Your task to perform on an android device: Go to notification settings Image 0: 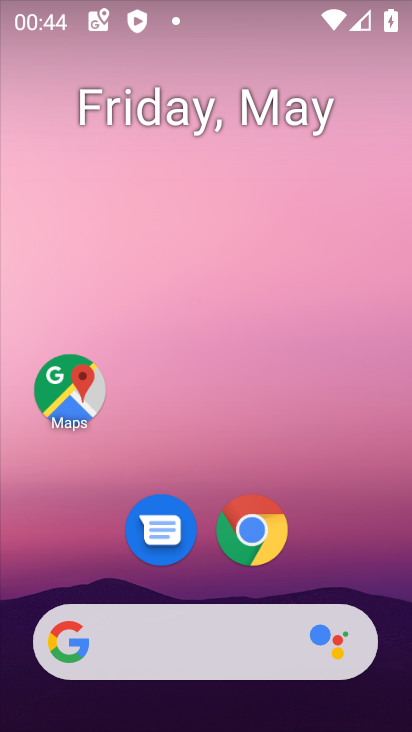
Step 0: drag from (308, 560) to (287, 72)
Your task to perform on an android device: Go to notification settings Image 1: 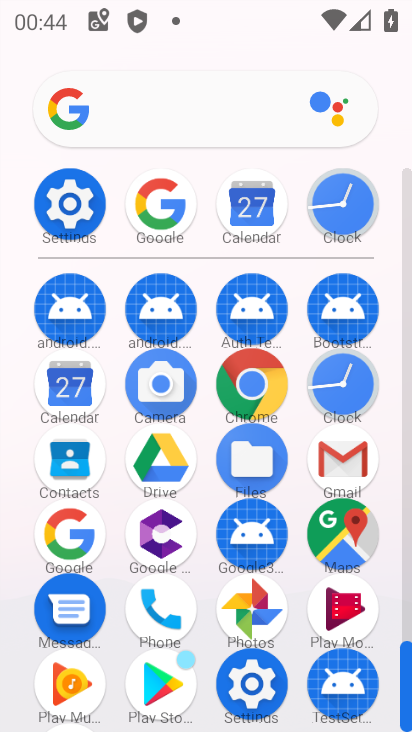
Step 1: click (70, 205)
Your task to perform on an android device: Go to notification settings Image 2: 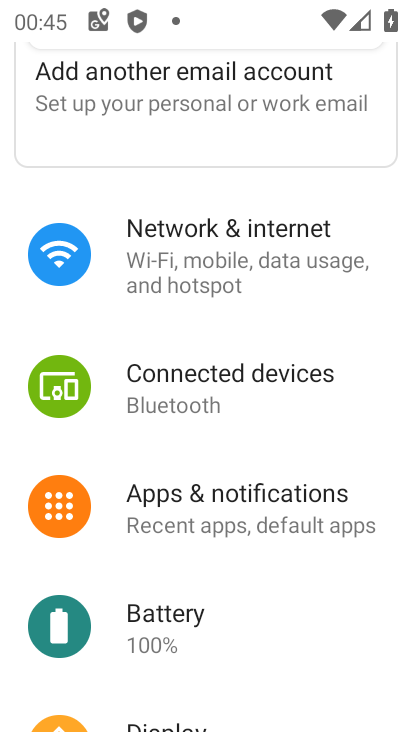
Step 2: click (202, 494)
Your task to perform on an android device: Go to notification settings Image 3: 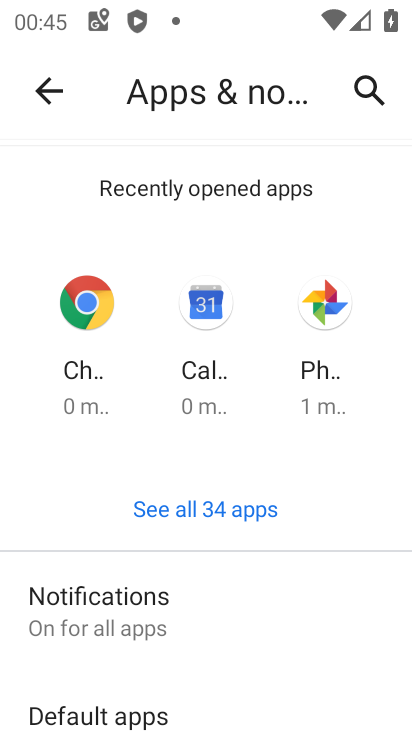
Step 3: click (118, 604)
Your task to perform on an android device: Go to notification settings Image 4: 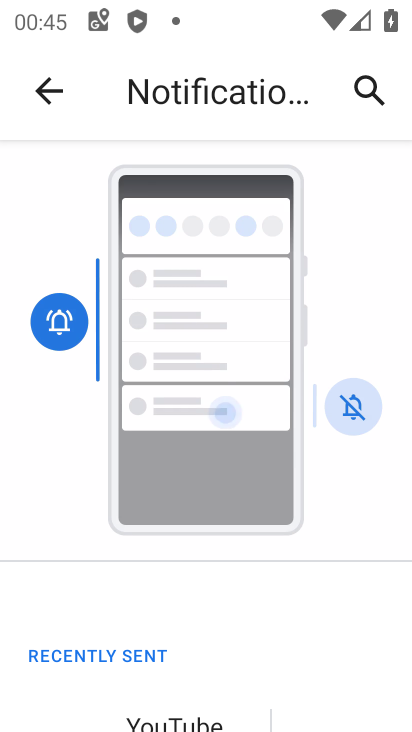
Step 4: task complete